Your task to perform on an android device: toggle notifications settings in the gmail app Image 0: 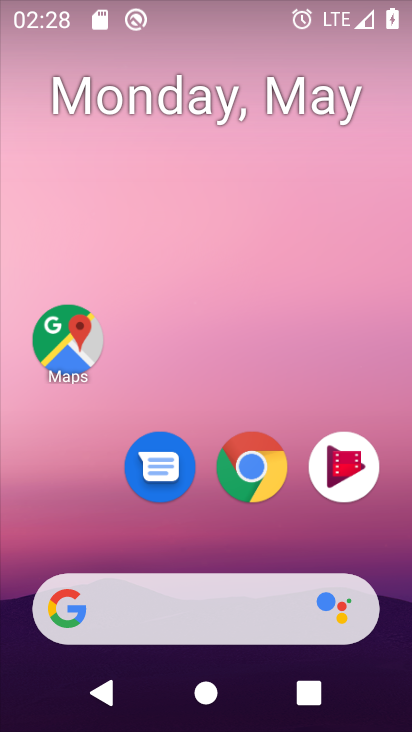
Step 0: drag from (216, 523) to (252, 170)
Your task to perform on an android device: toggle notifications settings in the gmail app Image 1: 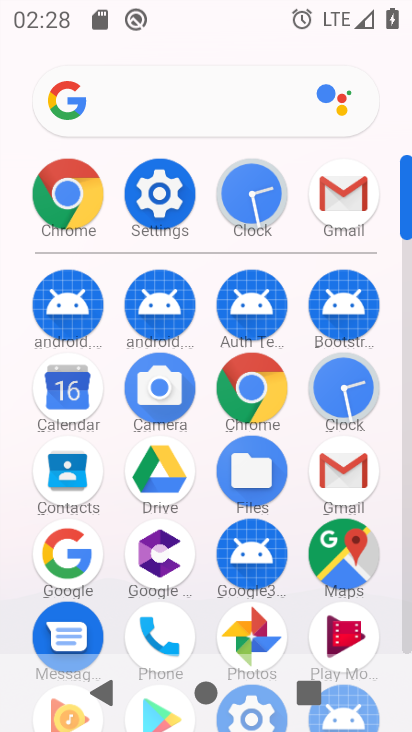
Step 1: click (334, 473)
Your task to perform on an android device: toggle notifications settings in the gmail app Image 2: 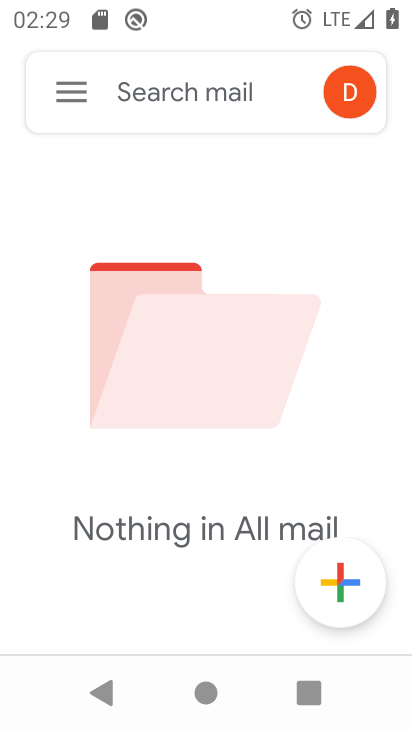
Step 2: click (66, 92)
Your task to perform on an android device: toggle notifications settings in the gmail app Image 3: 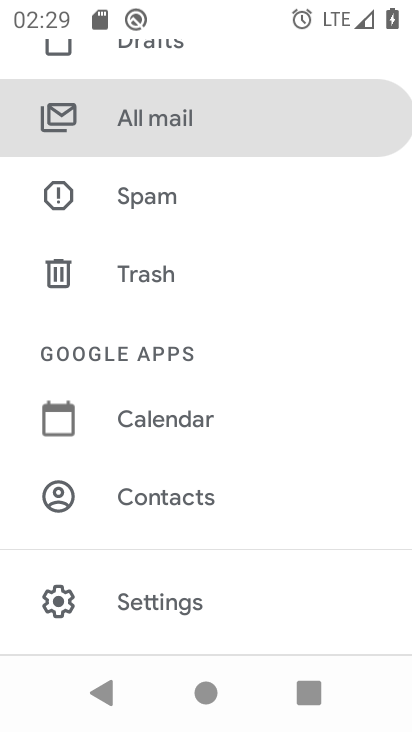
Step 3: click (188, 603)
Your task to perform on an android device: toggle notifications settings in the gmail app Image 4: 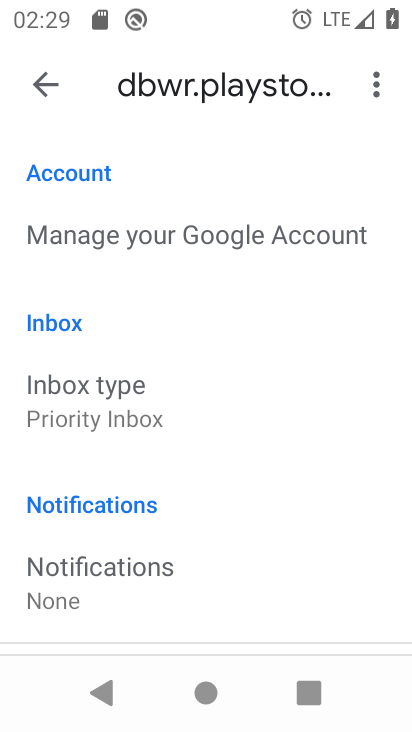
Step 4: click (144, 562)
Your task to perform on an android device: toggle notifications settings in the gmail app Image 5: 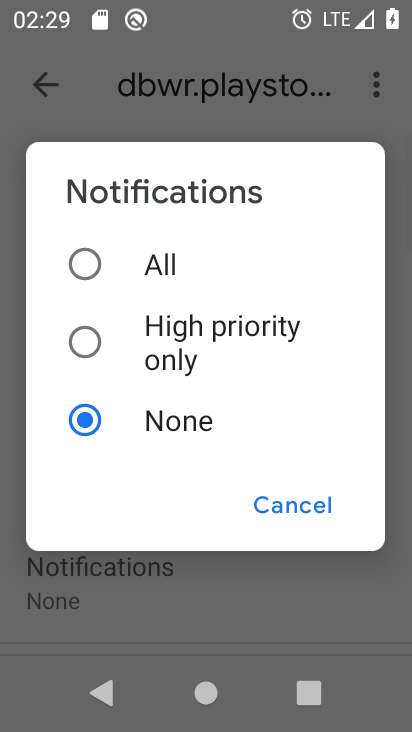
Step 5: click (164, 249)
Your task to perform on an android device: toggle notifications settings in the gmail app Image 6: 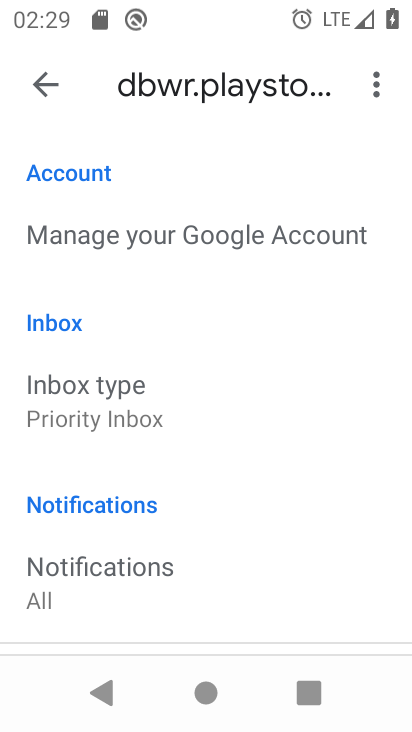
Step 6: task complete